Your task to perform on an android device: Toggle the flashlight Image 0: 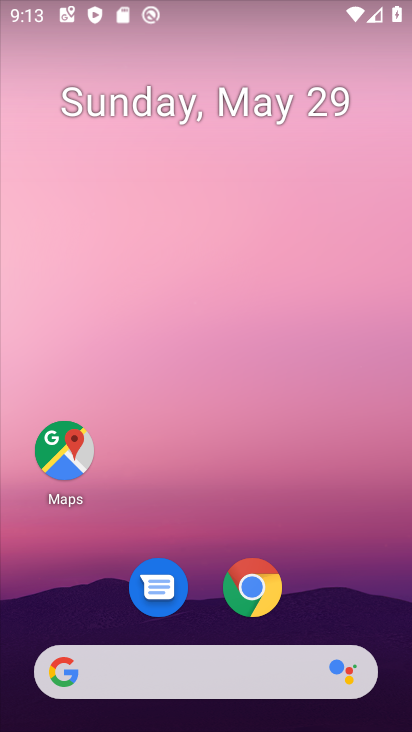
Step 0: drag from (189, 471) to (231, 67)
Your task to perform on an android device: Toggle the flashlight Image 1: 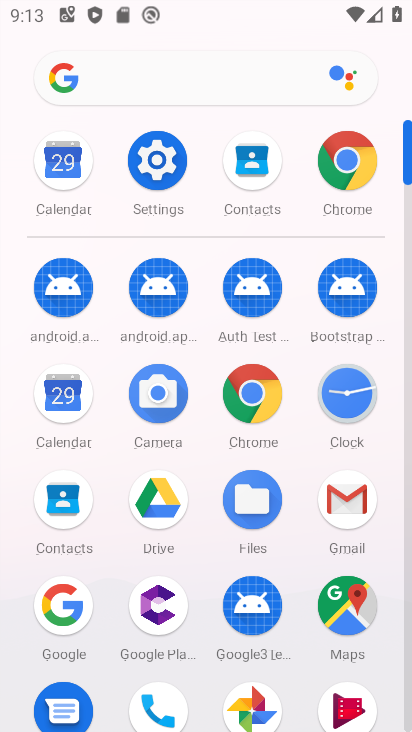
Step 1: click (168, 166)
Your task to perform on an android device: Toggle the flashlight Image 2: 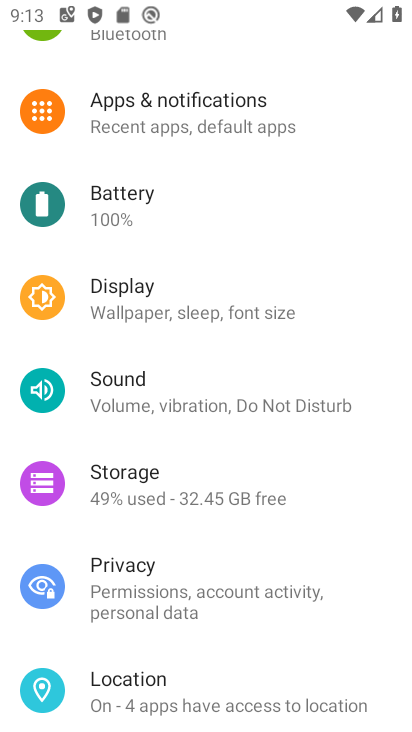
Step 2: drag from (183, 114) to (185, 554)
Your task to perform on an android device: Toggle the flashlight Image 3: 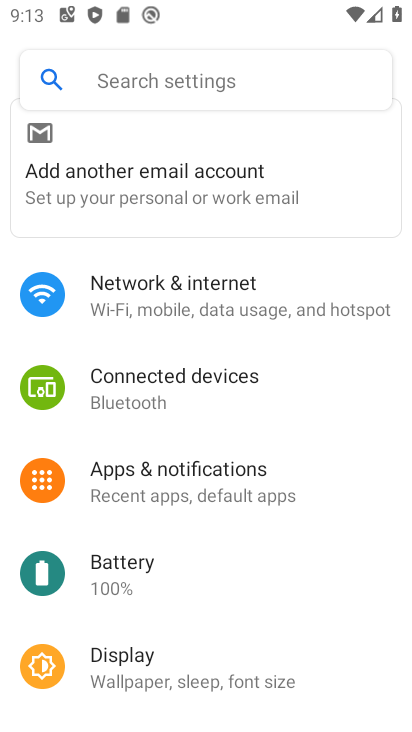
Step 3: click (178, 69)
Your task to perform on an android device: Toggle the flashlight Image 4: 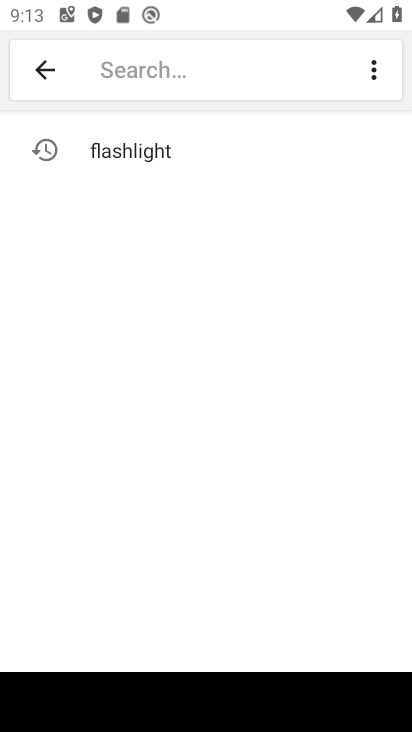
Step 4: type "flashlight"
Your task to perform on an android device: Toggle the flashlight Image 5: 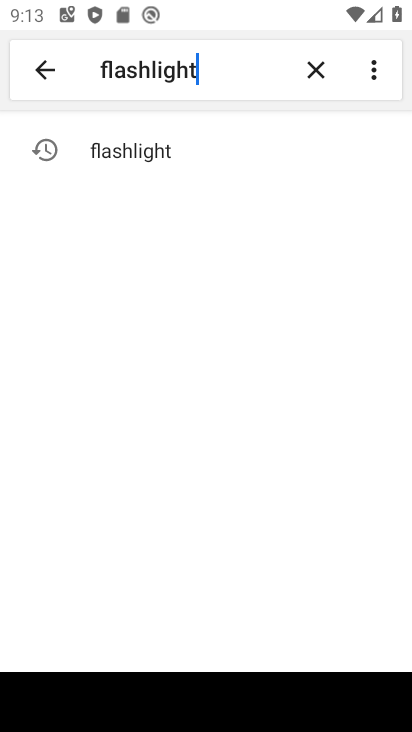
Step 5: click (123, 151)
Your task to perform on an android device: Toggle the flashlight Image 6: 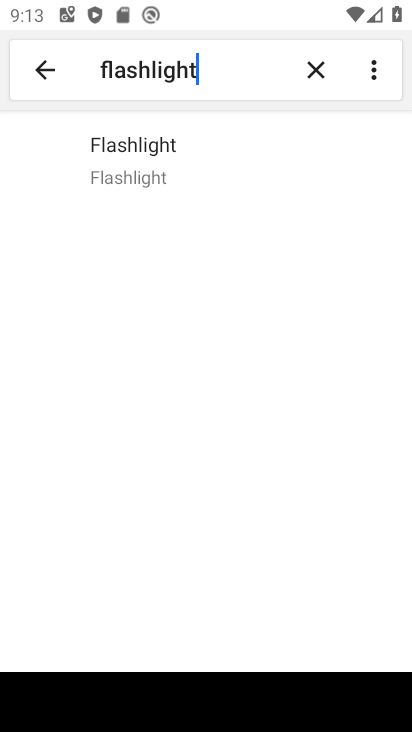
Step 6: task complete